Your task to perform on an android device: Is it going to rain tomorrow? Image 0: 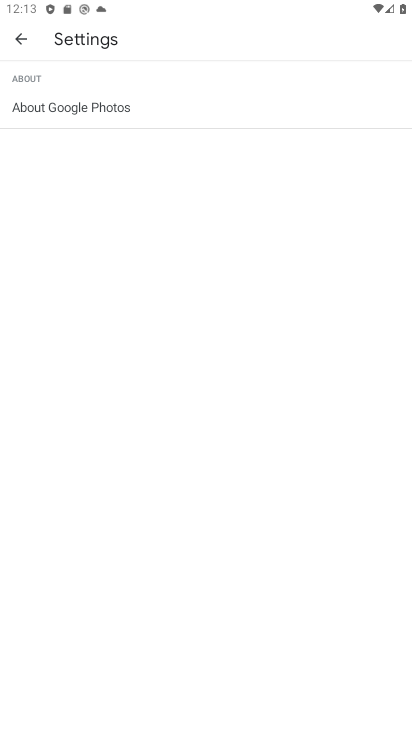
Step 0: press home button
Your task to perform on an android device: Is it going to rain tomorrow? Image 1: 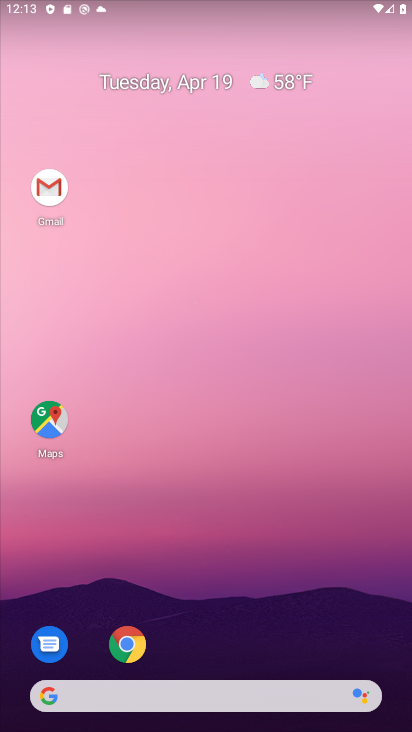
Step 1: drag from (215, 661) to (252, 200)
Your task to perform on an android device: Is it going to rain tomorrow? Image 2: 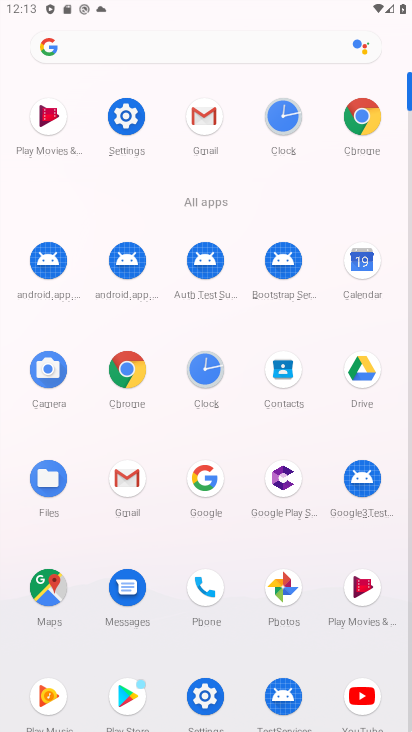
Step 2: click (204, 476)
Your task to perform on an android device: Is it going to rain tomorrow? Image 3: 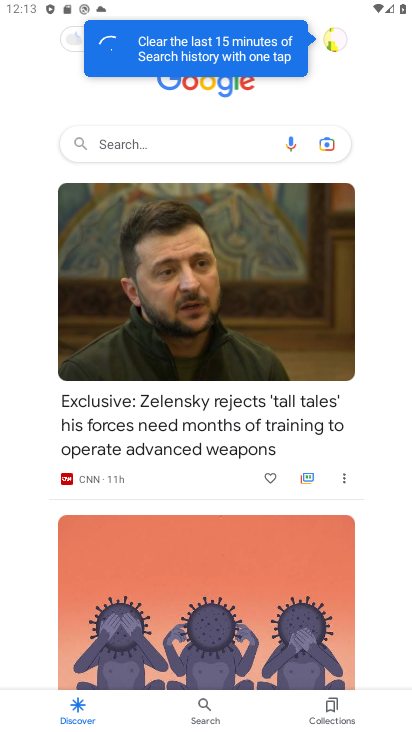
Step 3: click (68, 41)
Your task to perform on an android device: Is it going to rain tomorrow? Image 4: 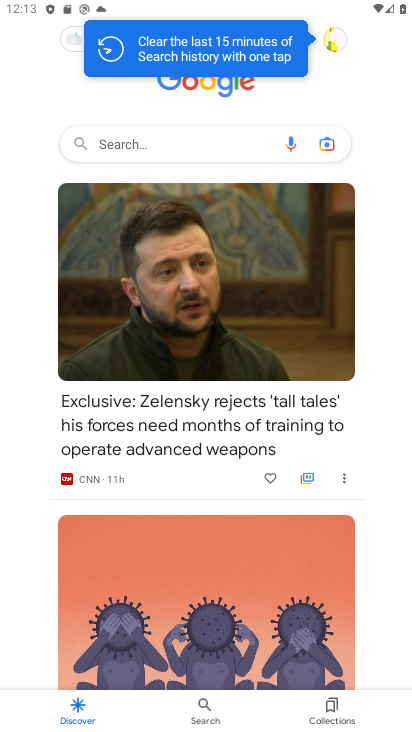
Step 4: click (74, 35)
Your task to perform on an android device: Is it going to rain tomorrow? Image 5: 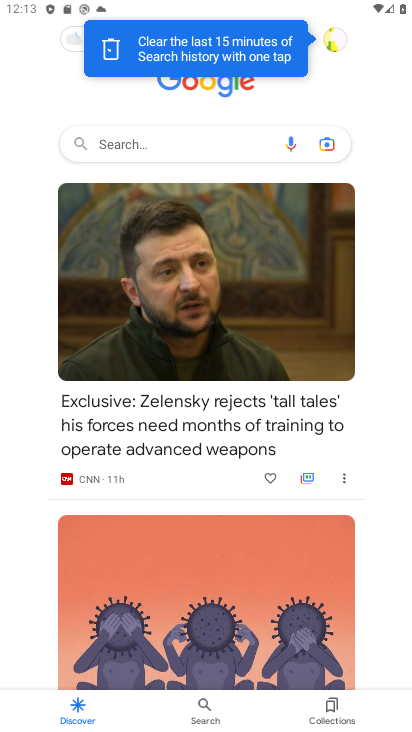
Step 5: click (66, 39)
Your task to perform on an android device: Is it going to rain tomorrow? Image 6: 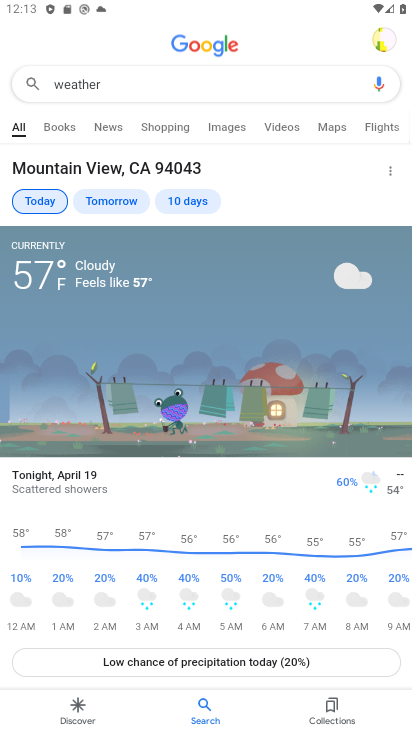
Step 6: click (108, 201)
Your task to perform on an android device: Is it going to rain tomorrow? Image 7: 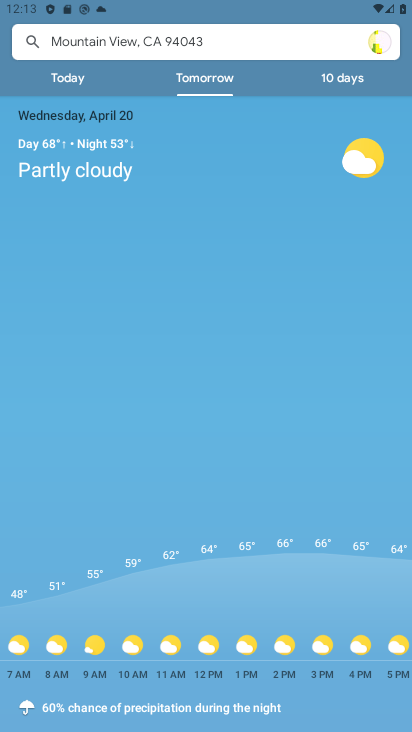
Step 7: task complete